Your task to perform on an android device: find photos in the google photos app Image 0: 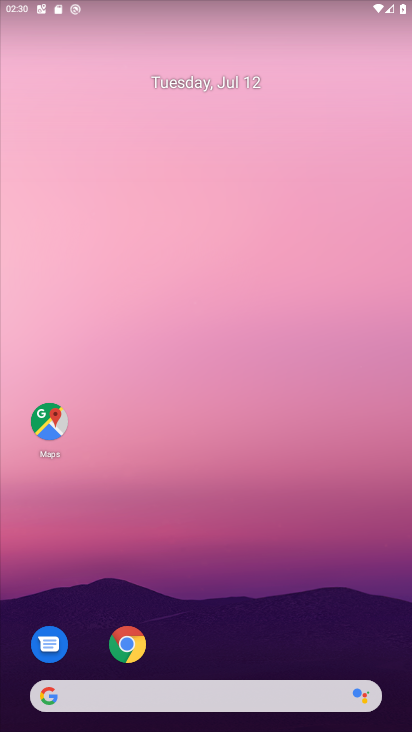
Step 0: drag from (224, 656) to (215, 76)
Your task to perform on an android device: find photos in the google photos app Image 1: 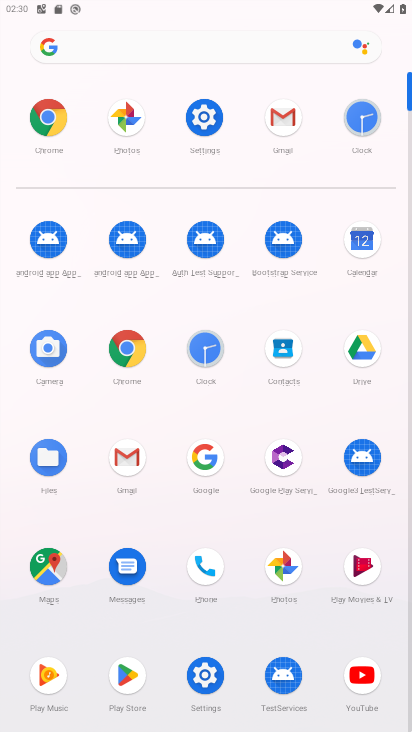
Step 1: click (283, 567)
Your task to perform on an android device: find photos in the google photos app Image 2: 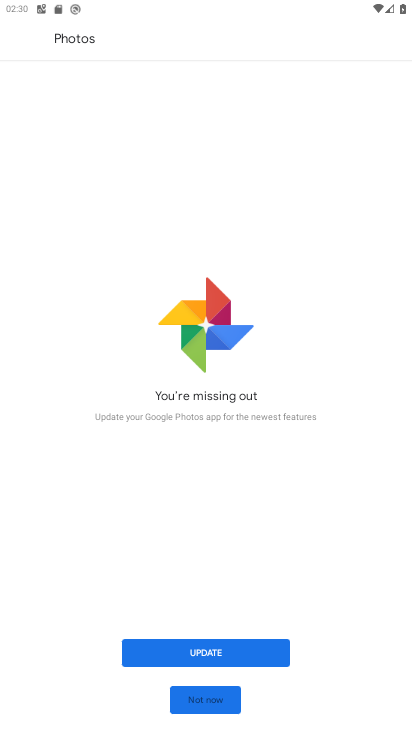
Step 2: click (208, 699)
Your task to perform on an android device: find photos in the google photos app Image 3: 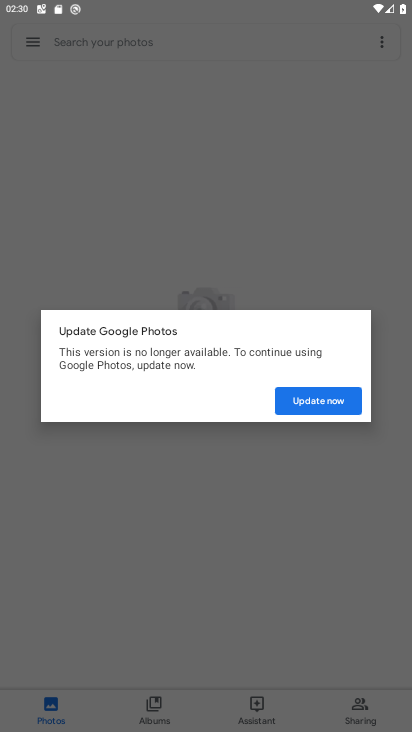
Step 3: click (314, 396)
Your task to perform on an android device: find photos in the google photos app Image 4: 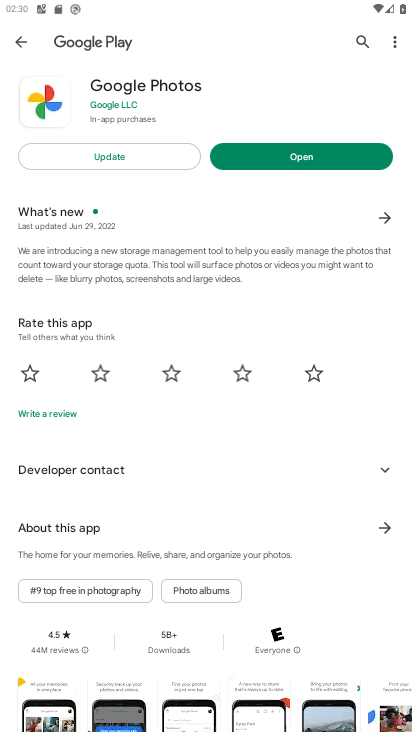
Step 4: click (109, 139)
Your task to perform on an android device: find photos in the google photos app Image 5: 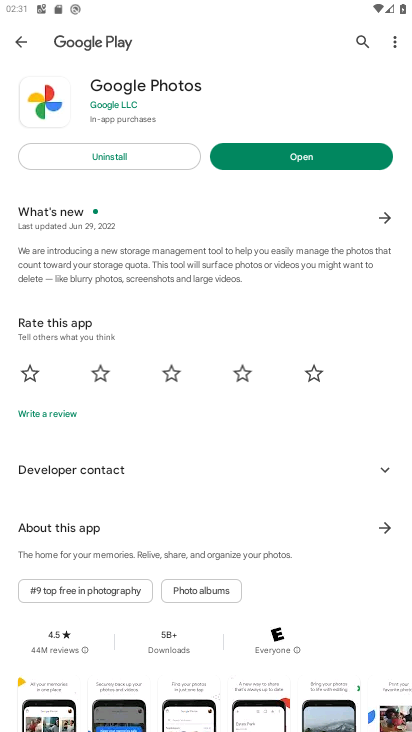
Step 5: click (286, 145)
Your task to perform on an android device: find photos in the google photos app Image 6: 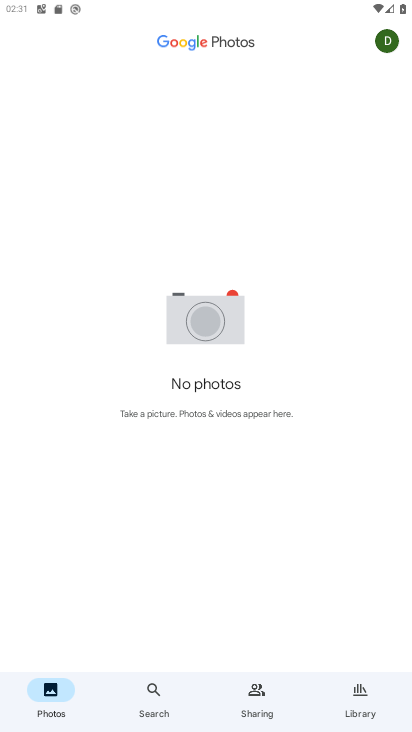
Step 6: task complete